Your task to perform on an android device: see creations saved in the google photos Image 0: 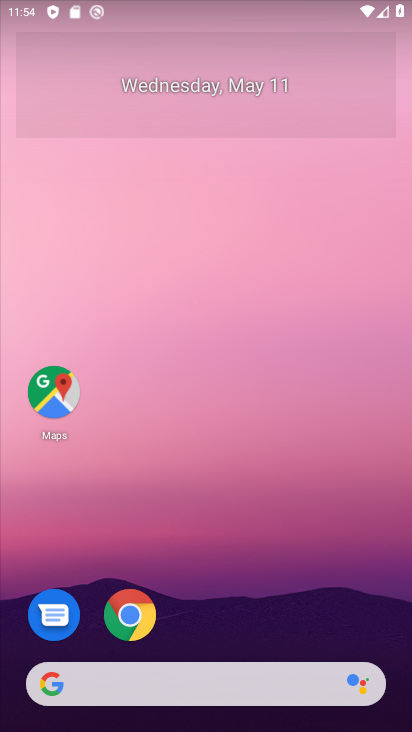
Step 0: drag from (236, 440) to (199, 39)
Your task to perform on an android device: see creations saved in the google photos Image 1: 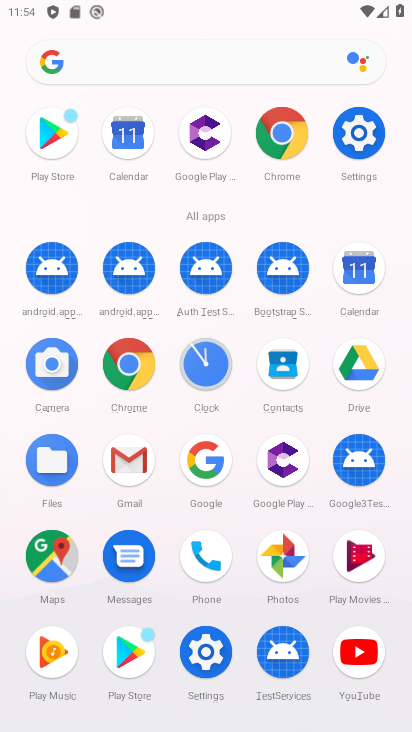
Step 1: click (294, 562)
Your task to perform on an android device: see creations saved in the google photos Image 2: 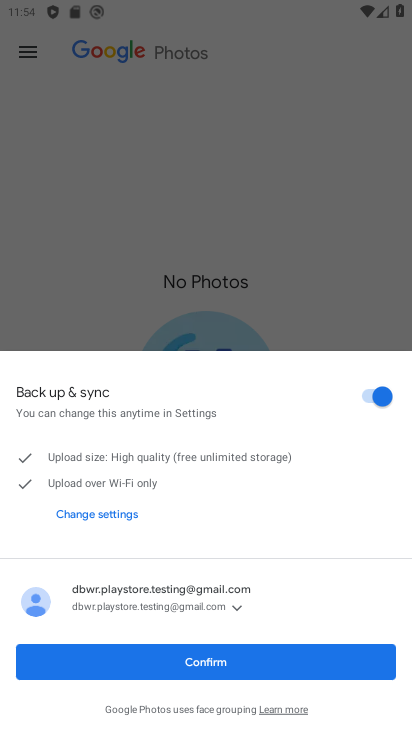
Step 2: click (200, 656)
Your task to perform on an android device: see creations saved in the google photos Image 3: 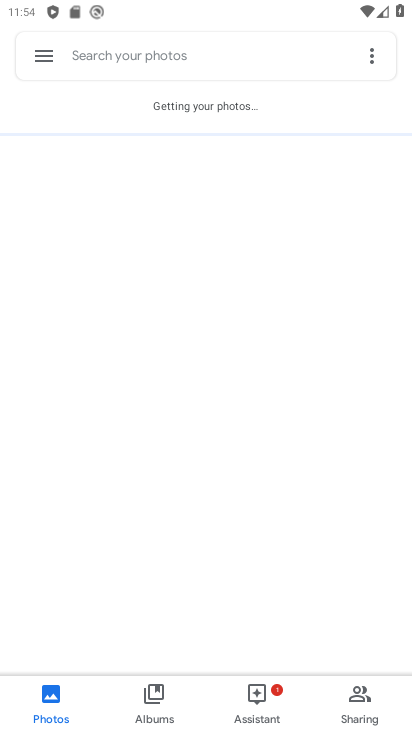
Step 3: click (155, 702)
Your task to perform on an android device: see creations saved in the google photos Image 4: 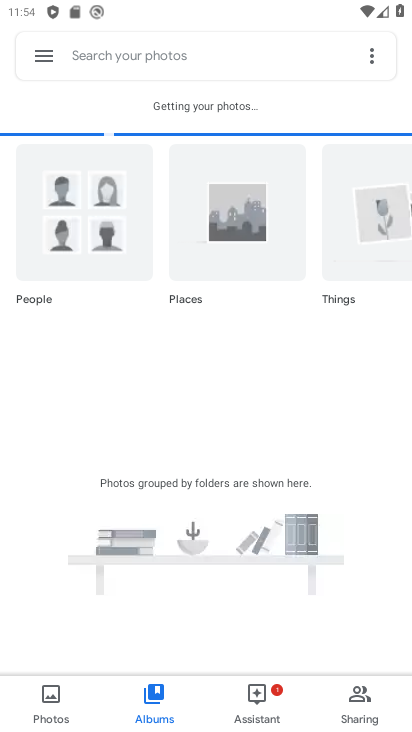
Step 4: click (218, 453)
Your task to perform on an android device: see creations saved in the google photos Image 5: 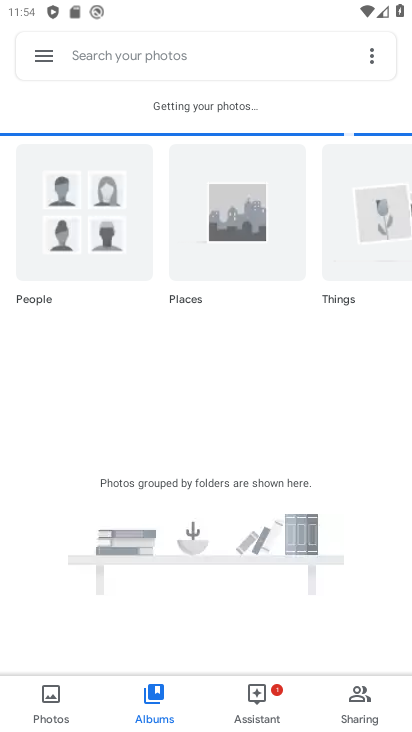
Step 5: task complete